Your task to perform on an android device: What's the weather going to be this weekend? Image 0: 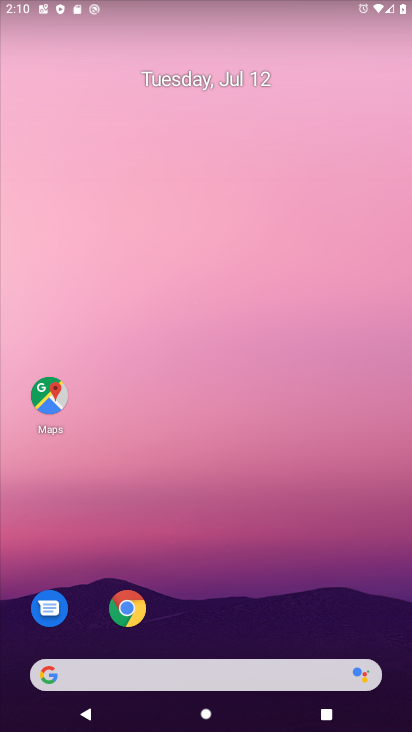
Step 0: drag from (252, 611) to (236, 94)
Your task to perform on an android device: What's the weather going to be this weekend? Image 1: 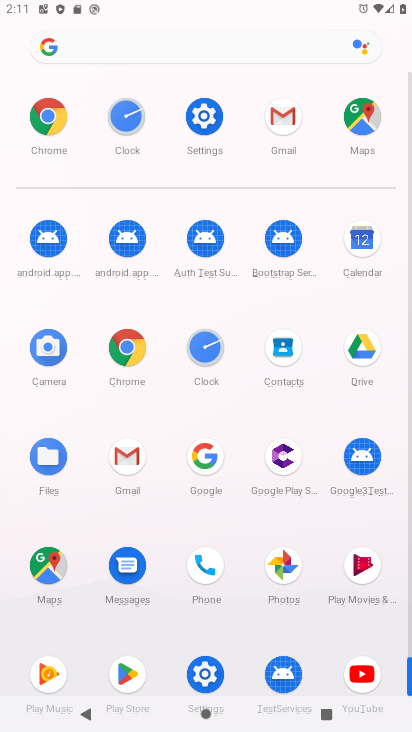
Step 1: click (127, 352)
Your task to perform on an android device: What's the weather going to be this weekend? Image 2: 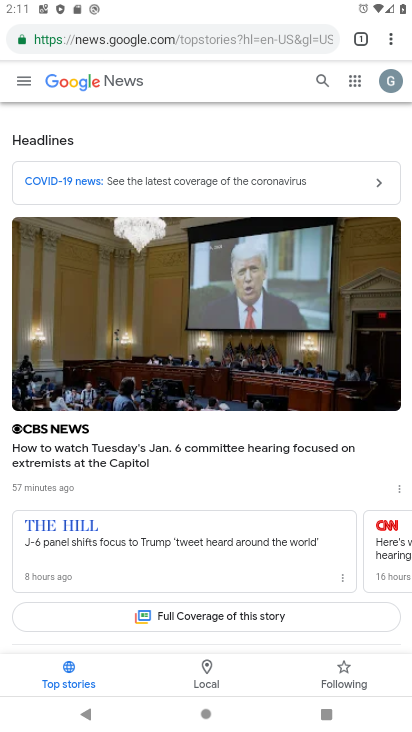
Step 2: click (185, 40)
Your task to perform on an android device: What's the weather going to be this weekend? Image 3: 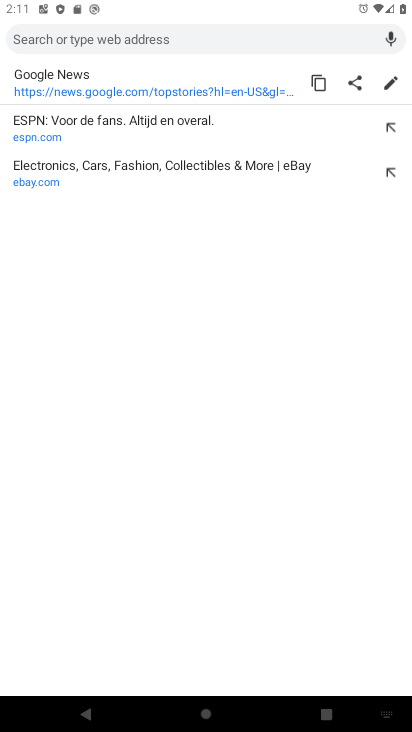
Step 3: type "weather"
Your task to perform on an android device: What's the weather going to be this weekend? Image 4: 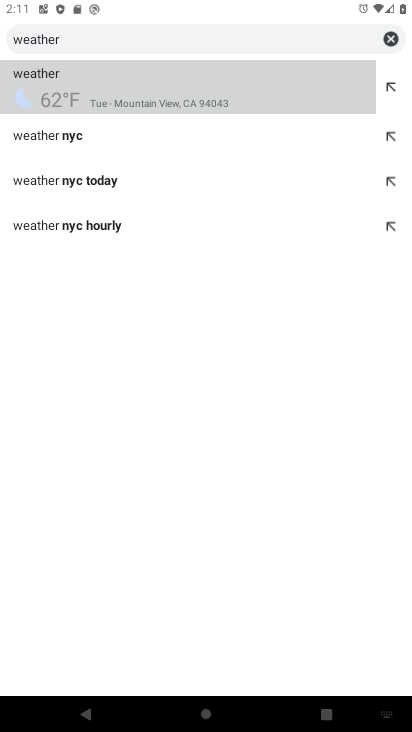
Step 4: click (79, 94)
Your task to perform on an android device: What's the weather going to be this weekend? Image 5: 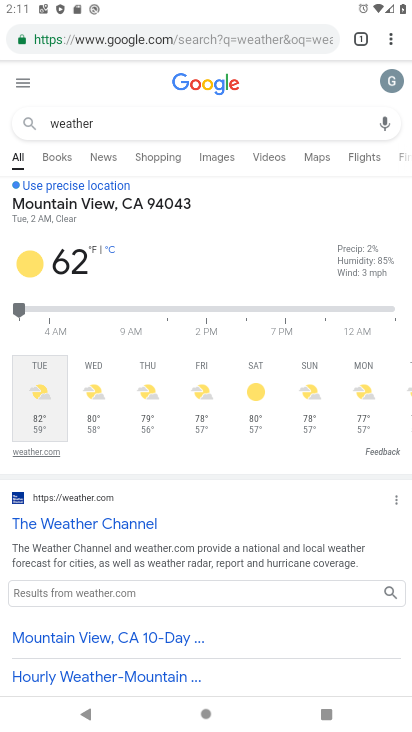
Step 5: click (258, 395)
Your task to perform on an android device: What's the weather going to be this weekend? Image 6: 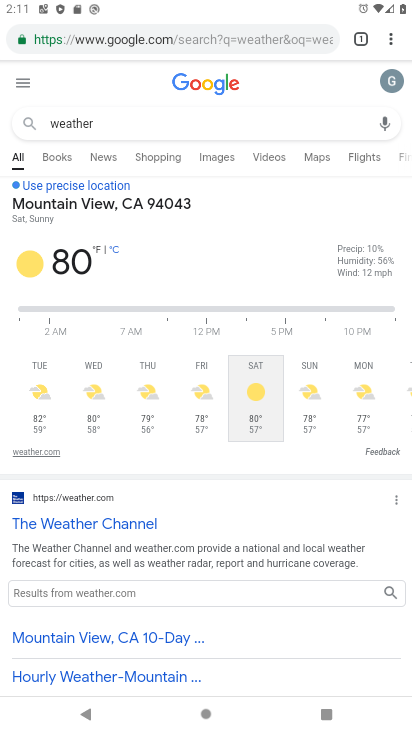
Step 6: task complete